Your task to perform on an android device: turn off picture-in-picture Image 0: 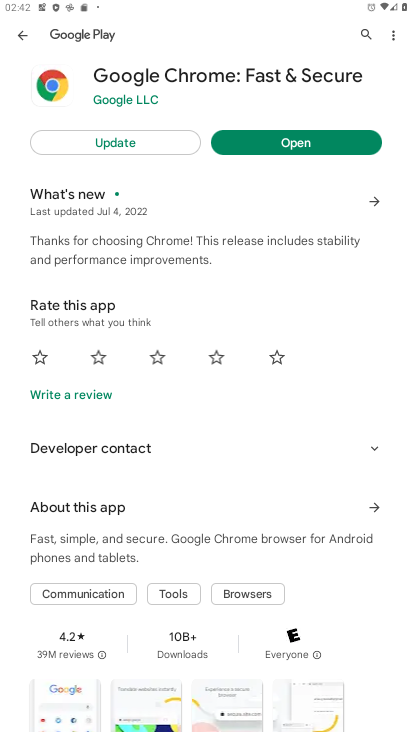
Step 0: press home button
Your task to perform on an android device: turn off picture-in-picture Image 1: 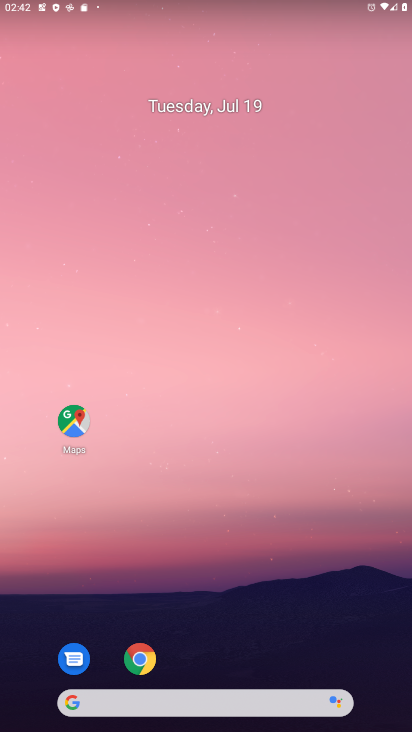
Step 1: click (136, 665)
Your task to perform on an android device: turn off picture-in-picture Image 2: 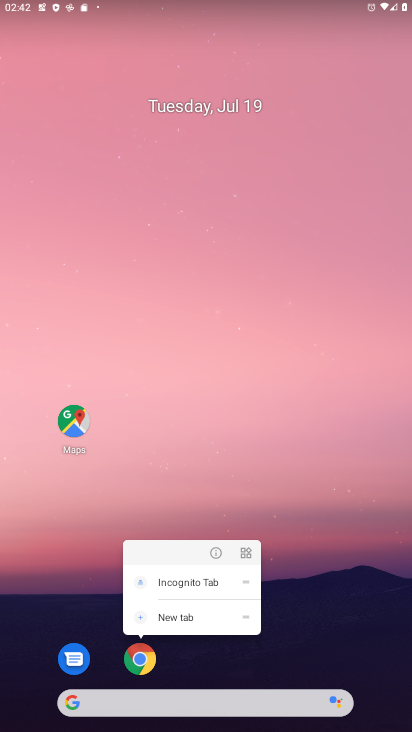
Step 2: click (214, 548)
Your task to perform on an android device: turn off picture-in-picture Image 3: 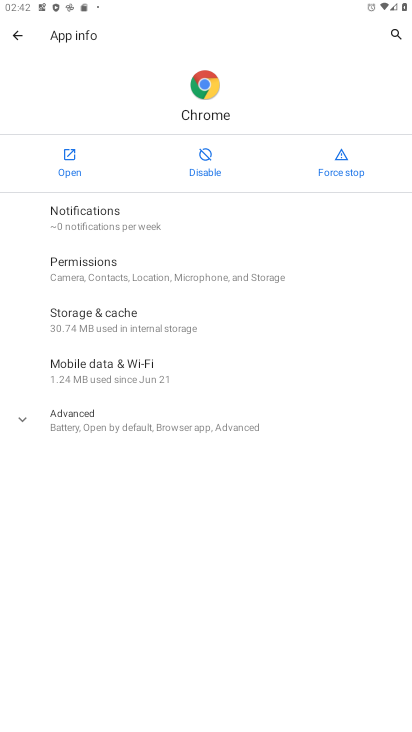
Step 3: click (105, 423)
Your task to perform on an android device: turn off picture-in-picture Image 4: 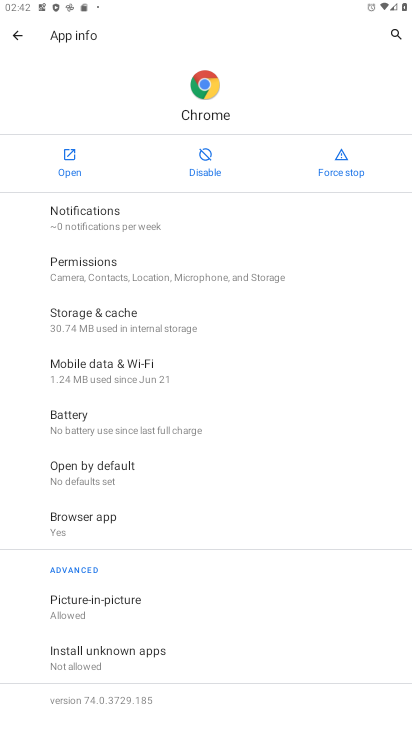
Step 4: click (114, 611)
Your task to perform on an android device: turn off picture-in-picture Image 5: 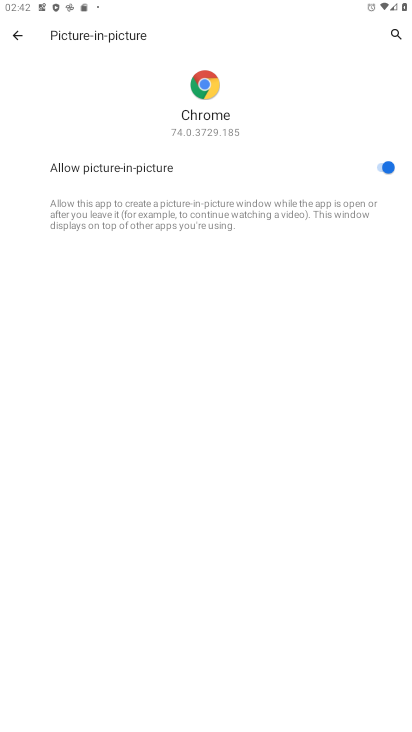
Step 5: click (290, 172)
Your task to perform on an android device: turn off picture-in-picture Image 6: 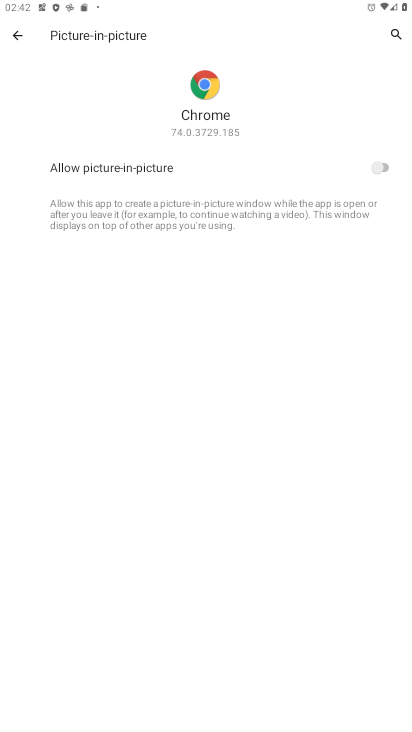
Step 6: task complete